Your task to perform on an android device: Open Youtube and go to the subscriptions tab Image 0: 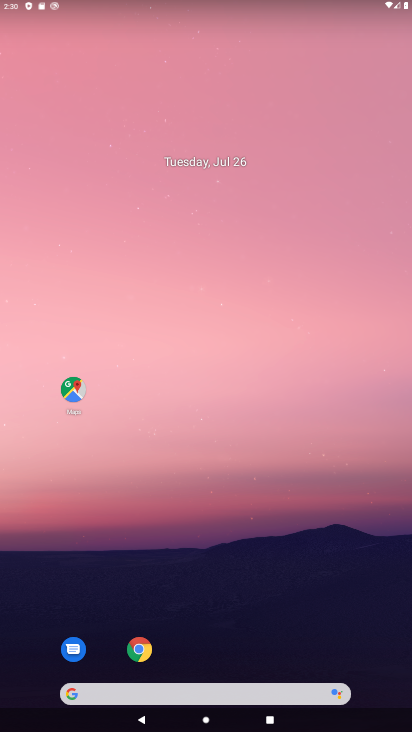
Step 0: drag from (220, 628) to (119, 12)
Your task to perform on an android device: Open Youtube and go to the subscriptions tab Image 1: 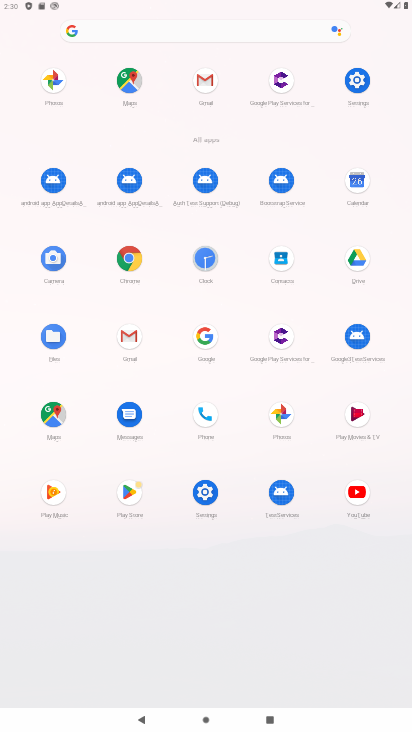
Step 1: click (362, 545)
Your task to perform on an android device: Open Youtube and go to the subscriptions tab Image 2: 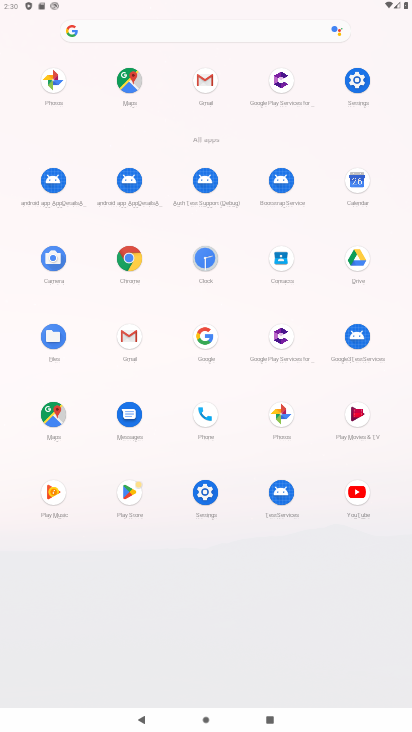
Step 2: click (355, 505)
Your task to perform on an android device: Open Youtube and go to the subscriptions tab Image 3: 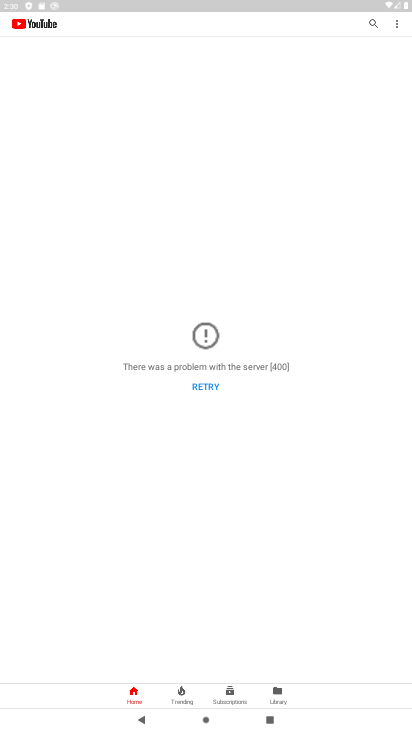
Step 3: click (227, 695)
Your task to perform on an android device: Open Youtube and go to the subscriptions tab Image 4: 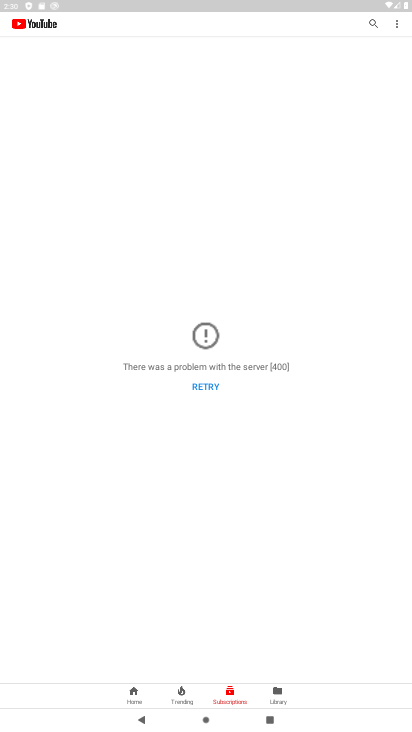
Step 4: task complete